Your task to perform on an android device: turn on the 24-hour format for clock Image 0: 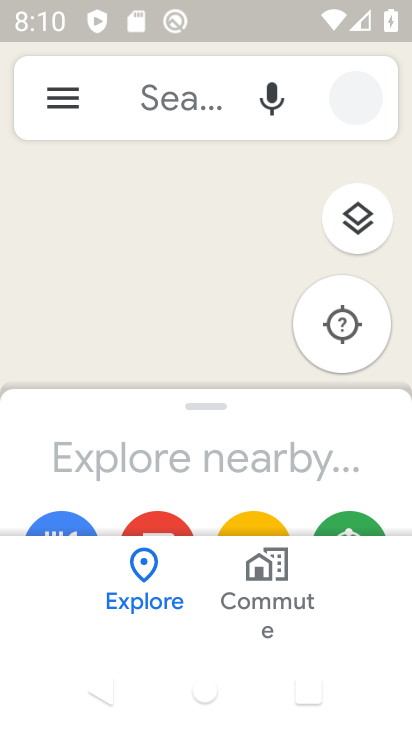
Step 0: click (254, 442)
Your task to perform on an android device: turn on the 24-hour format for clock Image 1: 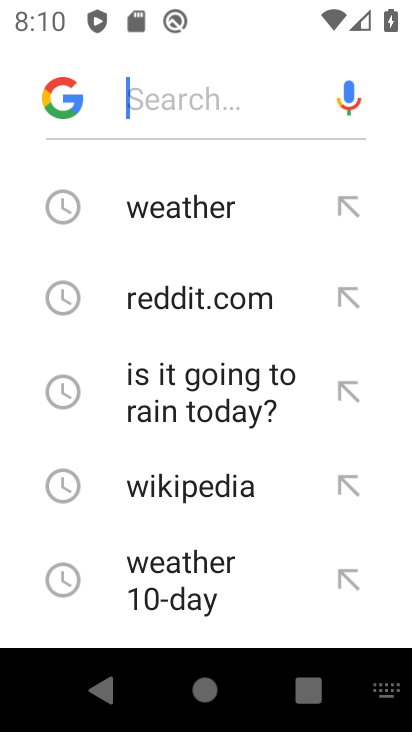
Step 1: press home button
Your task to perform on an android device: turn on the 24-hour format for clock Image 2: 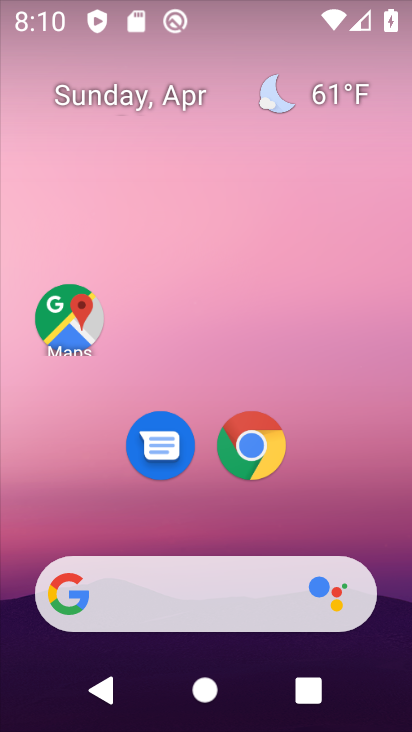
Step 2: click (215, 189)
Your task to perform on an android device: turn on the 24-hour format for clock Image 3: 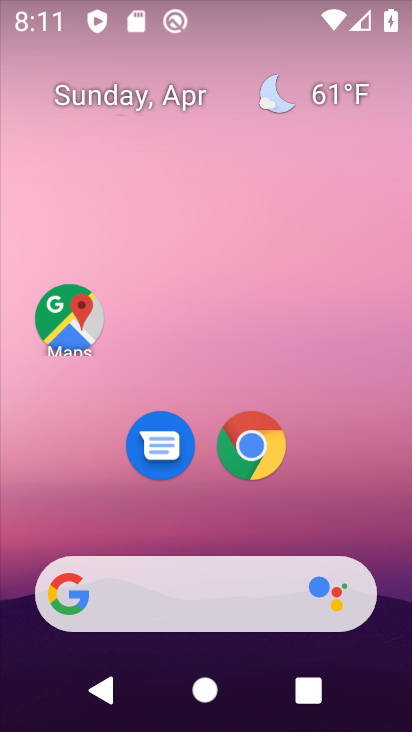
Step 3: drag from (204, 430) to (204, 142)
Your task to perform on an android device: turn on the 24-hour format for clock Image 4: 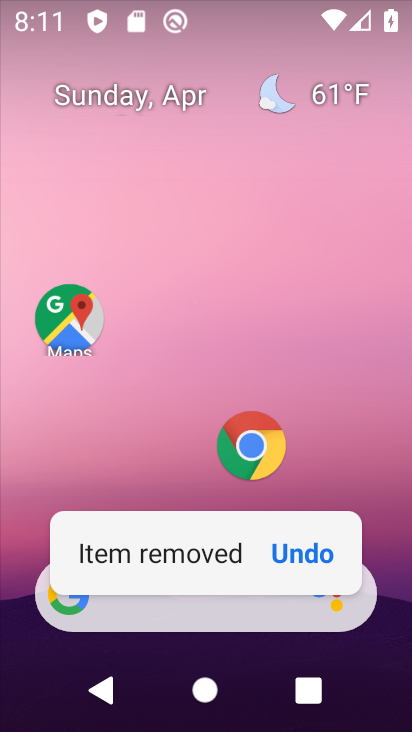
Step 4: click (252, 280)
Your task to perform on an android device: turn on the 24-hour format for clock Image 5: 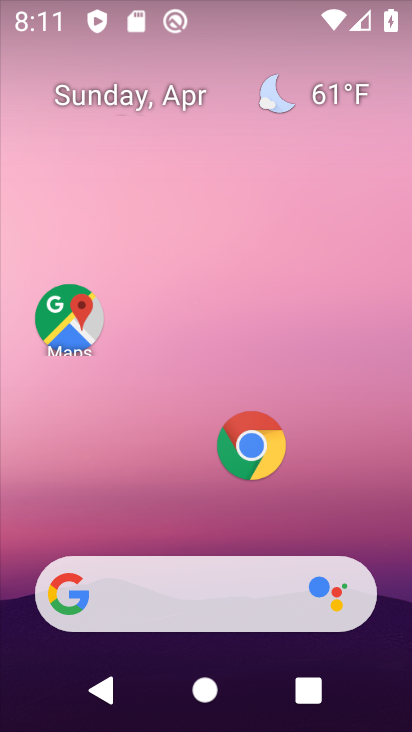
Step 5: drag from (187, 536) to (213, 142)
Your task to perform on an android device: turn on the 24-hour format for clock Image 6: 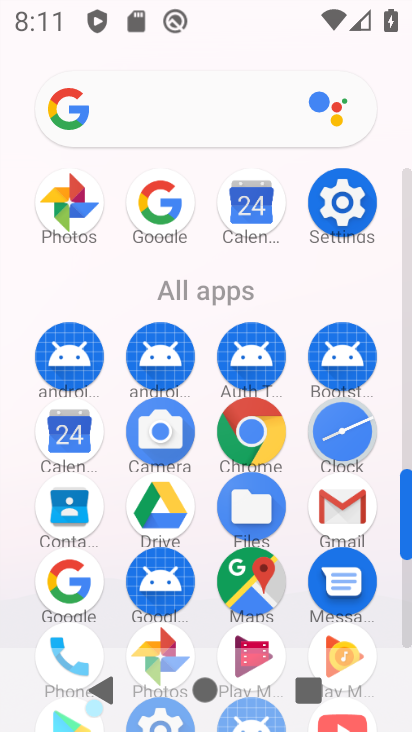
Step 6: click (346, 436)
Your task to perform on an android device: turn on the 24-hour format for clock Image 7: 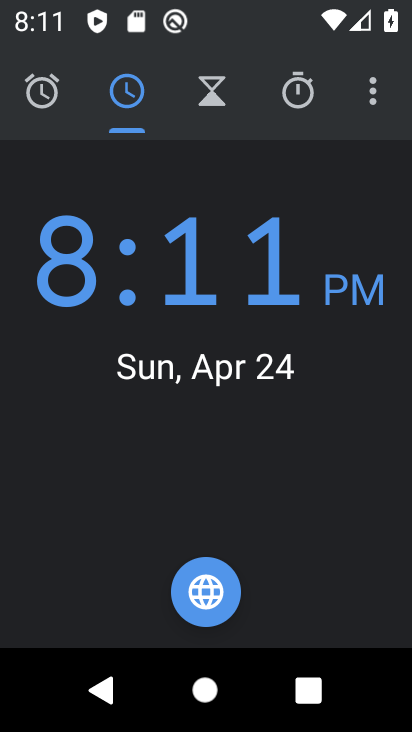
Step 7: click (369, 86)
Your task to perform on an android device: turn on the 24-hour format for clock Image 8: 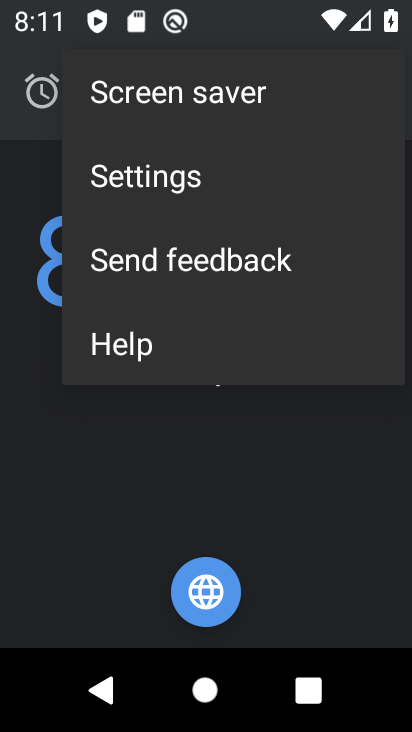
Step 8: click (168, 179)
Your task to perform on an android device: turn on the 24-hour format for clock Image 9: 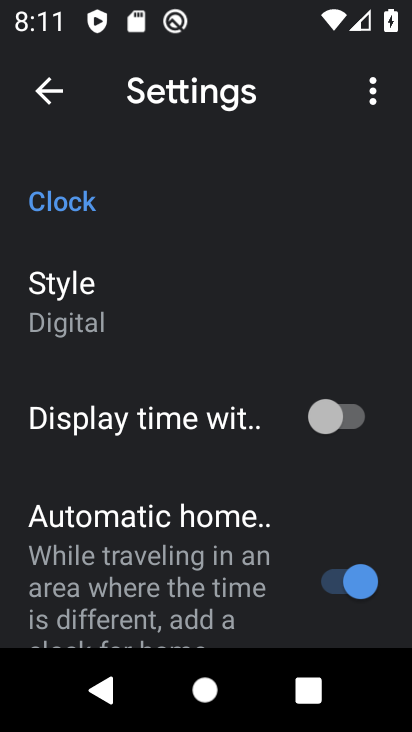
Step 9: drag from (173, 562) to (197, 251)
Your task to perform on an android device: turn on the 24-hour format for clock Image 10: 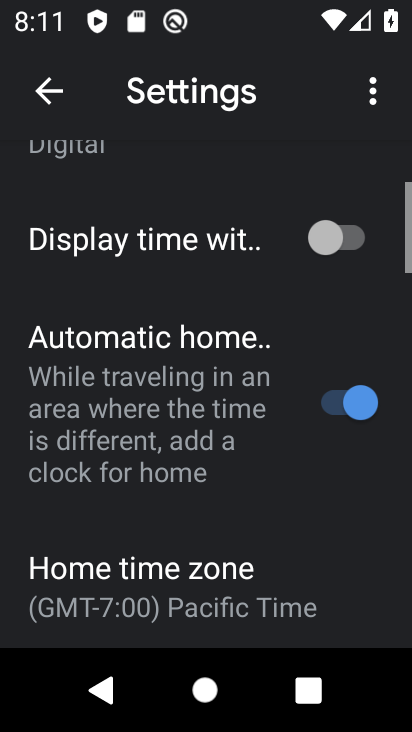
Step 10: drag from (196, 500) to (248, 201)
Your task to perform on an android device: turn on the 24-hour format for clock Image 11: 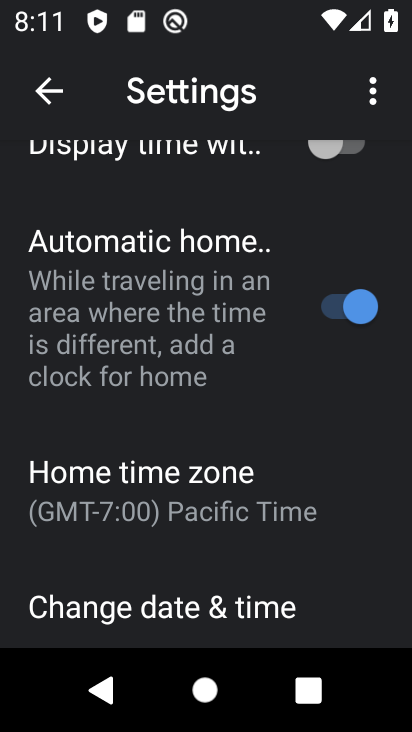
Step 11: drag from (172, 597) to (216, 410)
Your task to perform on an android device: turn on the 24-hour format for clock Image 12: 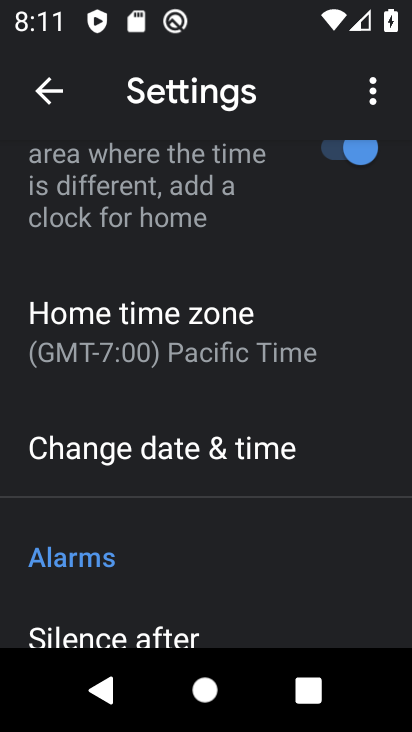
Step 12: click (202, 431)
Your task to perform on an android device: turn on the 24-hour format for clock Image 13: 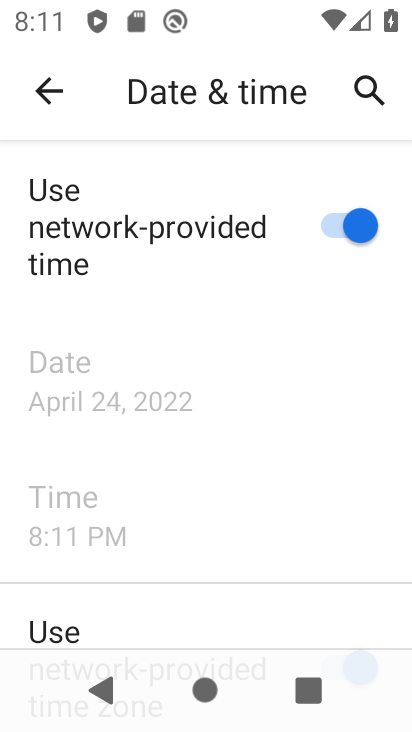
Step 13: drag from (225, 544) to (257, 199)
Your task to perform on an android device: turn on the 24-hour format for clock Image 14: 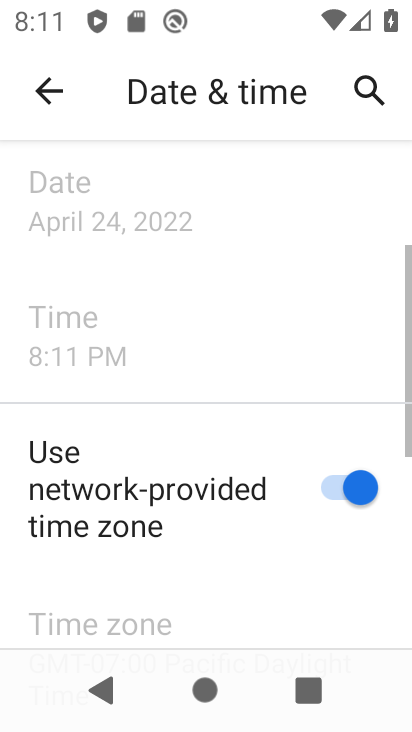
Step 14: drag from (216, 490) to (234, 235)
Your task to perform on an android device: turn on the 24-hour format for clock Image 15: 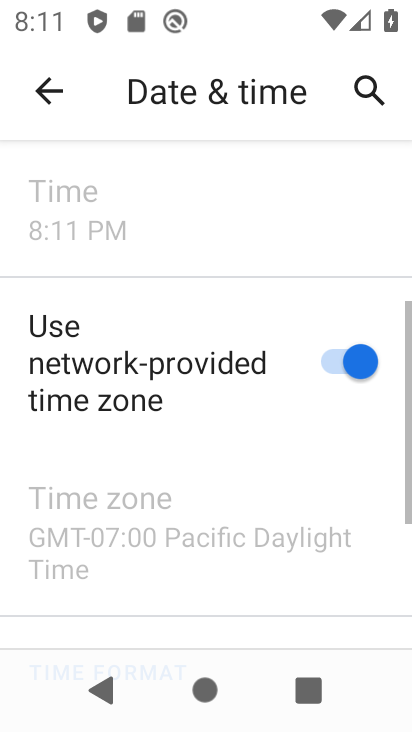
Step 15: drag from (224, 555) to (262, 273)
Your task to perform on an android device: turn on the 24-hour format for clock Image 16: 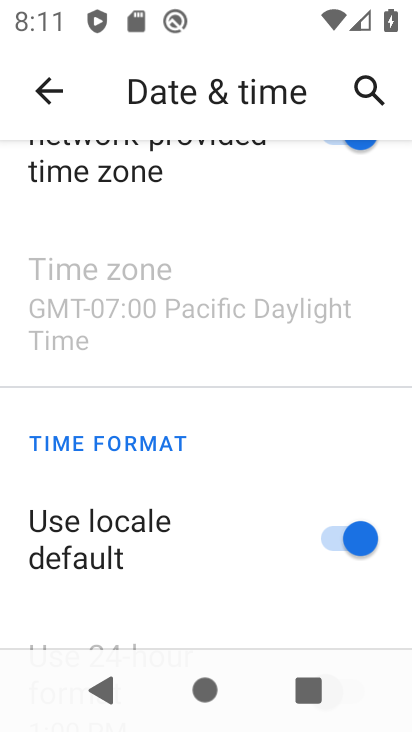
Step 16: drag from (206, 608) to (259, 218)
Your task to perform on an android device: turn on the 24-hour format for clock Image 17: 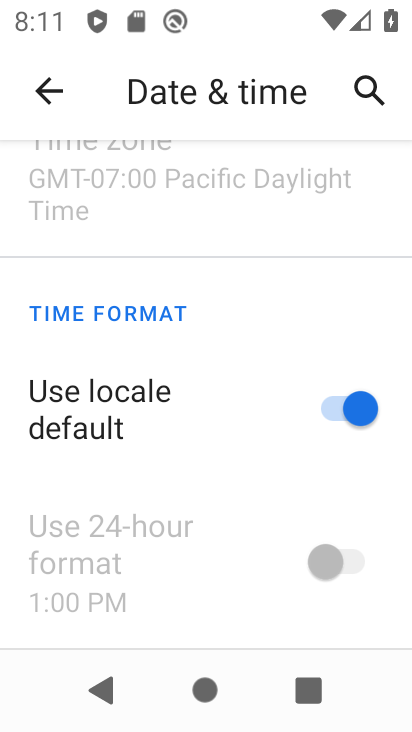
Step 17: click (333, 405)
Your task to perform on an android device: turn on the 24-hour format for clock Image 18: 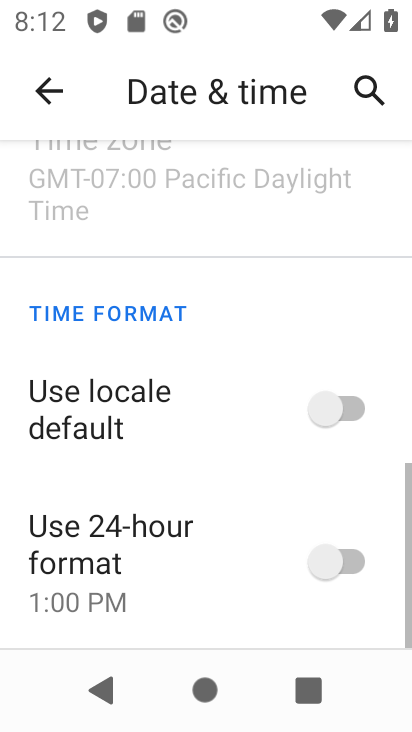
Step 18: click (355, 562)
Your task to perform on an android device: turn on the 24-hour format for clock Image 19: 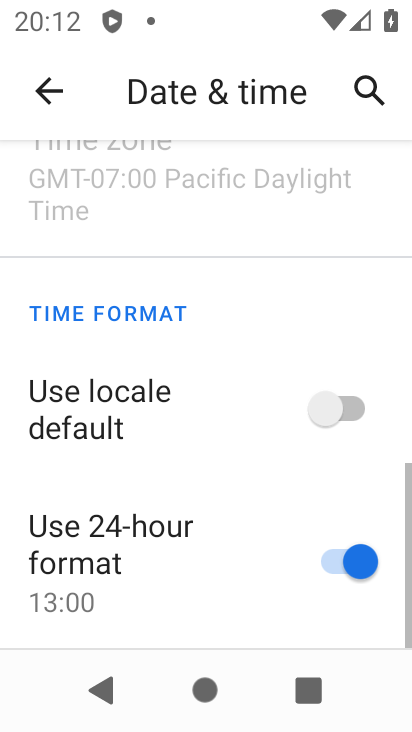
Step 19: task complete